Your task to perform on an android device: Open the map Image 0: 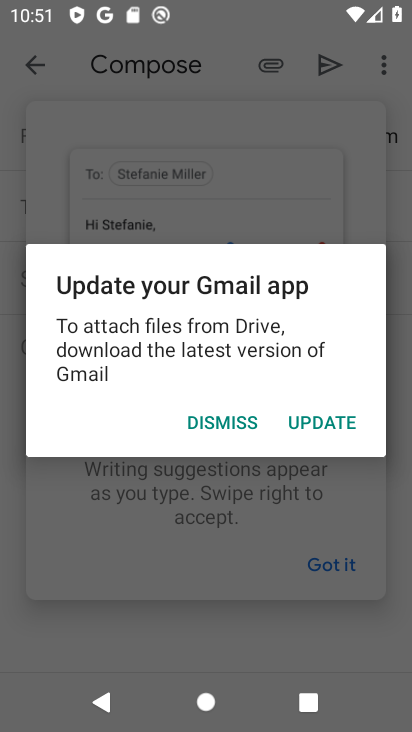
Step 0: press home button
Your task to perform on an android device: Open the map Image 1: 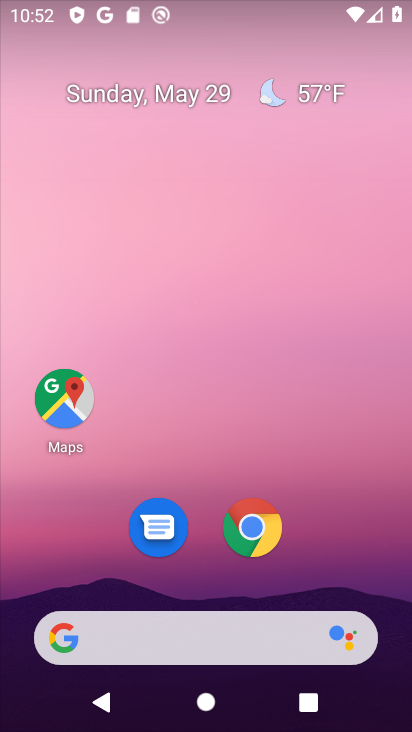
Step 1: click (64, 398)
Your task to perform on an android device: Open the map Image 2: 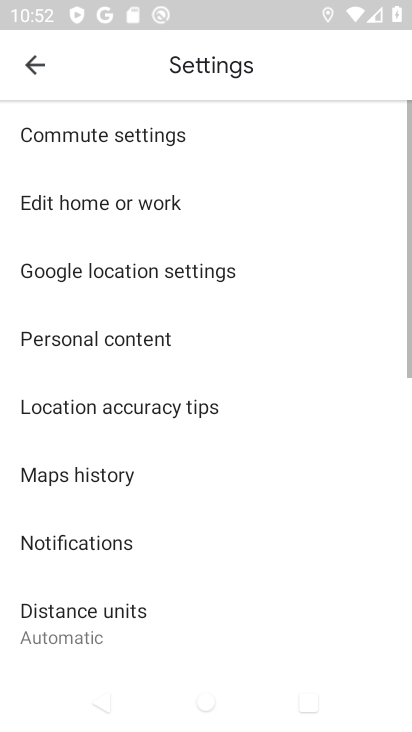
Step 2: click (14, 66)
Your task to perform on an android device: Open the map Image 3: 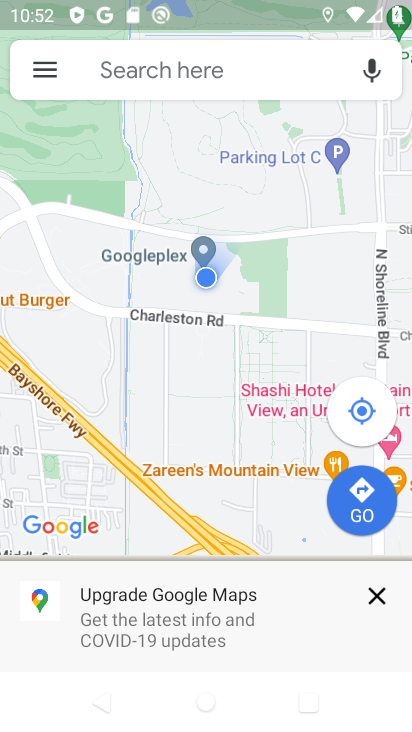
Step 3: task complete